Your task to perform on an android device: Show me popular games on the Play Store Image 0: 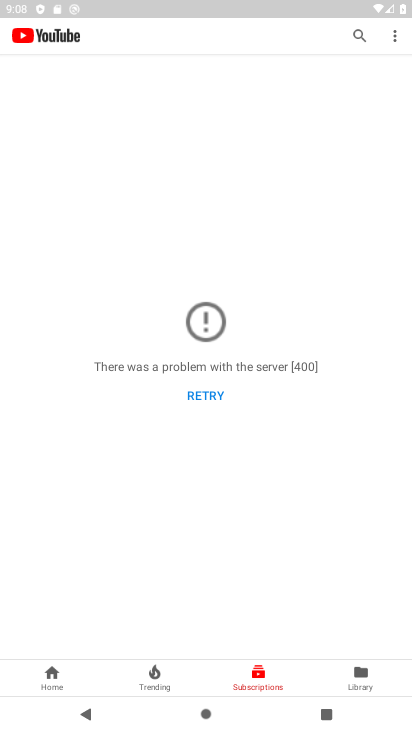
Step 0: press home button
Your task to perform on an android device: Show me popular games on the Play Store Image 1: 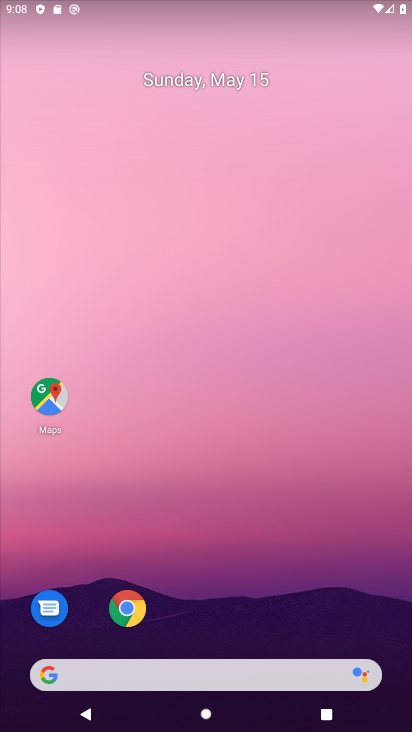
Step 1: drag from (291, 476) to (76, 389)
Your task to perform on an android device: Show me popular games on the Play Store Image 2: 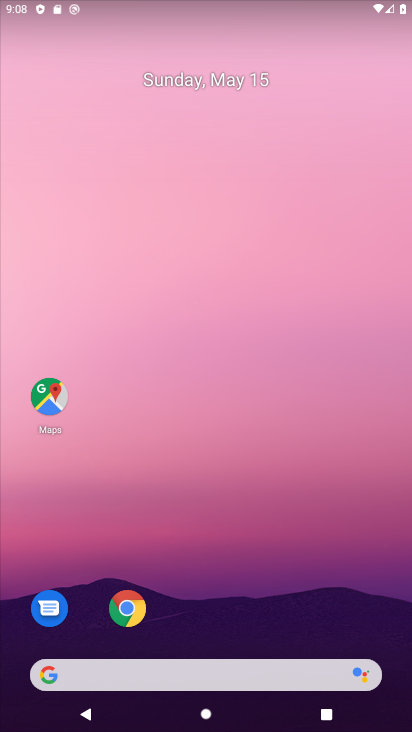
Step 2: drag from (244, 559) to (212, 34)
Your task to perform on an android device: Show me popular games on the Play Store Image 3: 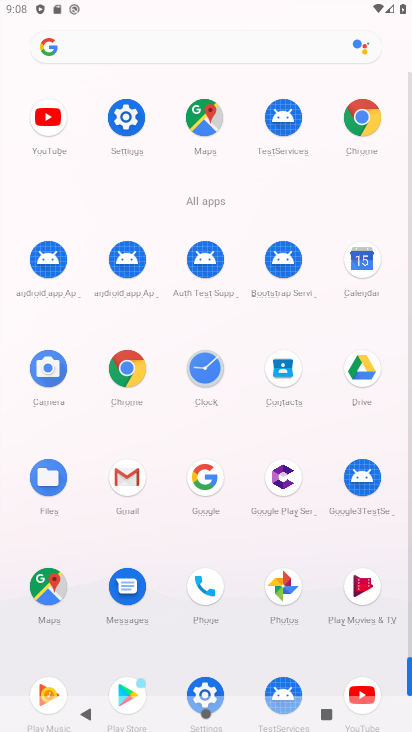
Step 3: drag from (173, 615) to (191, 179)
Your task to perform on an android device: Show me popular games on the Play Store Image 4: 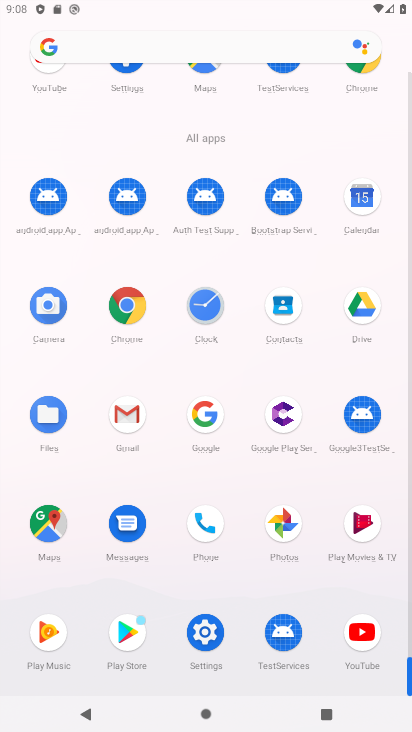
Step 4: click (126, 624)
Your task to perform on an android device: Show me popular games on the Play Store Image 5: 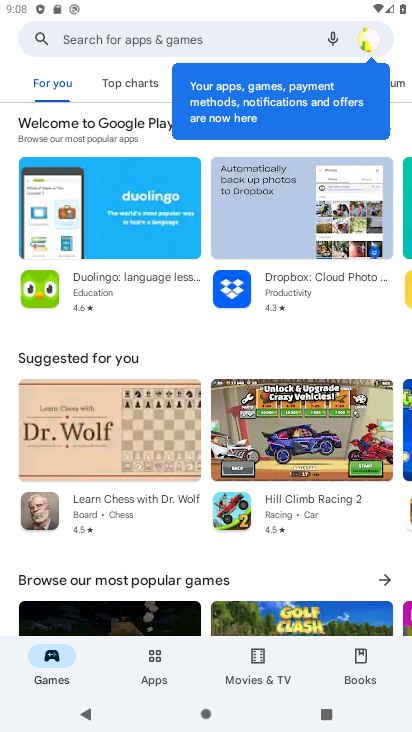
Step 5: click (163, 21)
Your task to perform on an android device: Show me popular games on the Play Store Image 6: 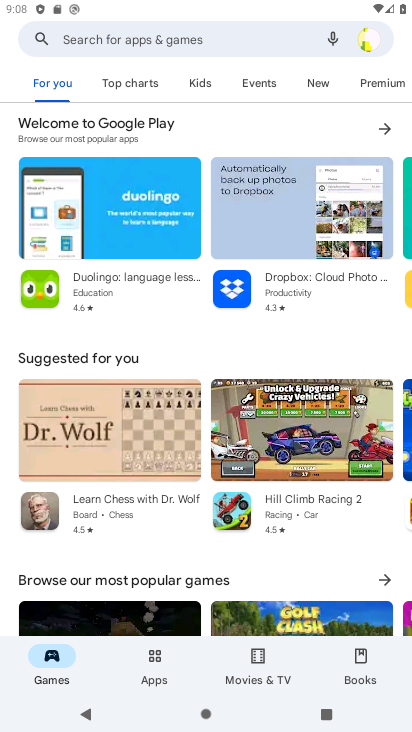
Step 6: click (158, 42)
Your task to perform on an android device: Show me popular games on the Play Store Image 7: 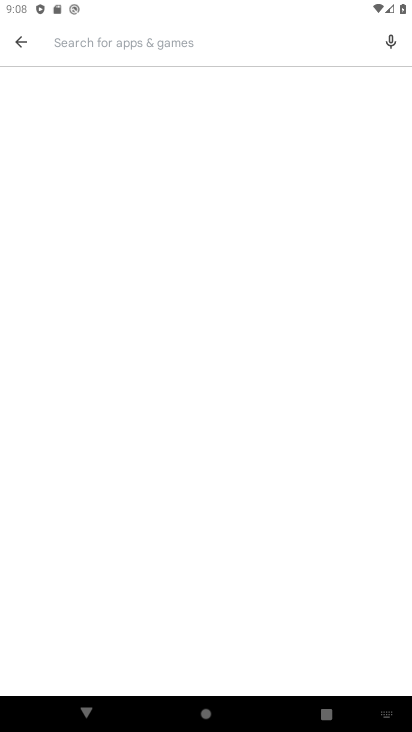
Step 7: type "popular games"
Your task to perform on an android device: Show me popular games on the Play Store Image 8: 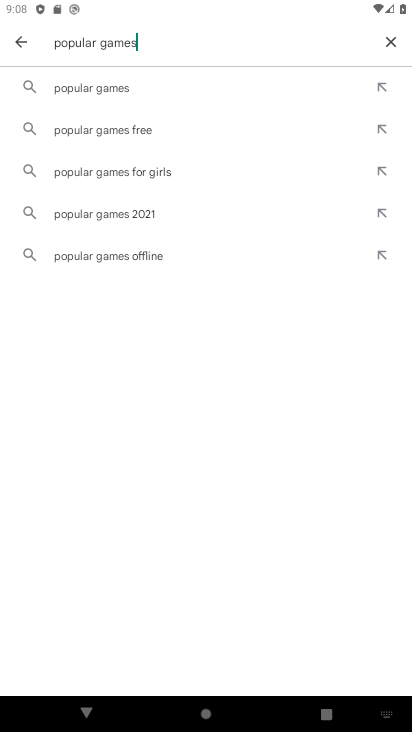
Step 8: click (79, 92)
Your task to perform on an android device: Show me popular games on the Play Store Image 9: 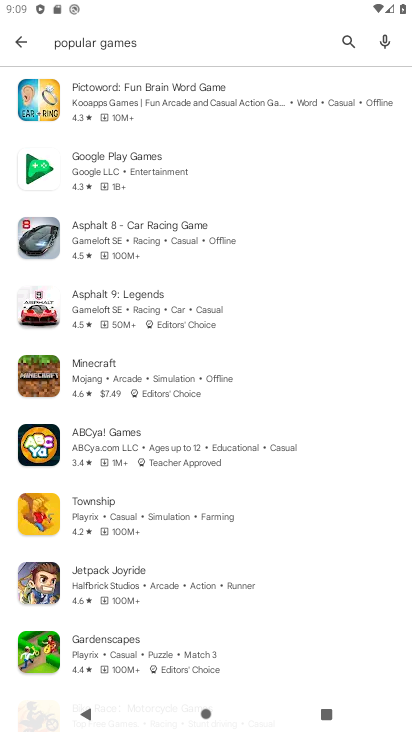
Step 9: task complete